Your task to perform on an android device: turn on airplane mode Image 0: 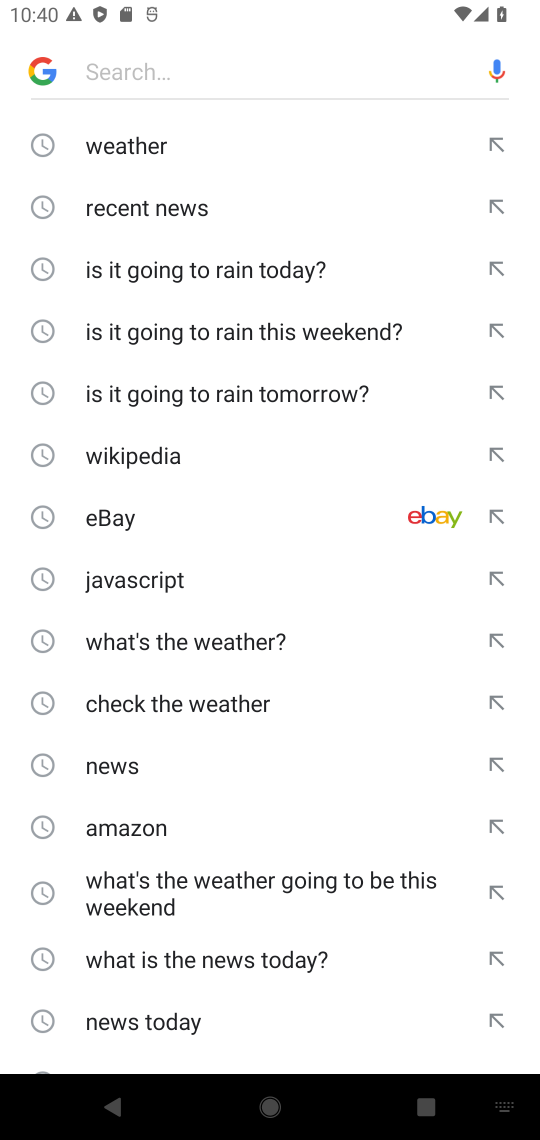
Step 0: drag from (265, 4) to (257, 871)
Your task to perform on an android device: turn on airplane mode Image 1: 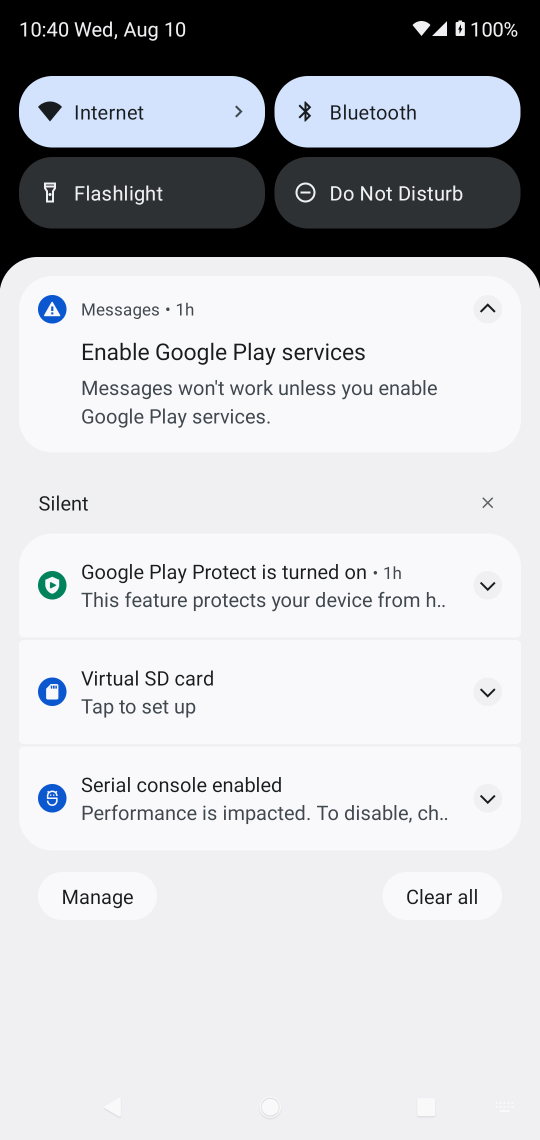
Step 1: drag from (281, 236) to (271, 1133)
Your task to perform on an android device: turn on airplane mode Image 2: 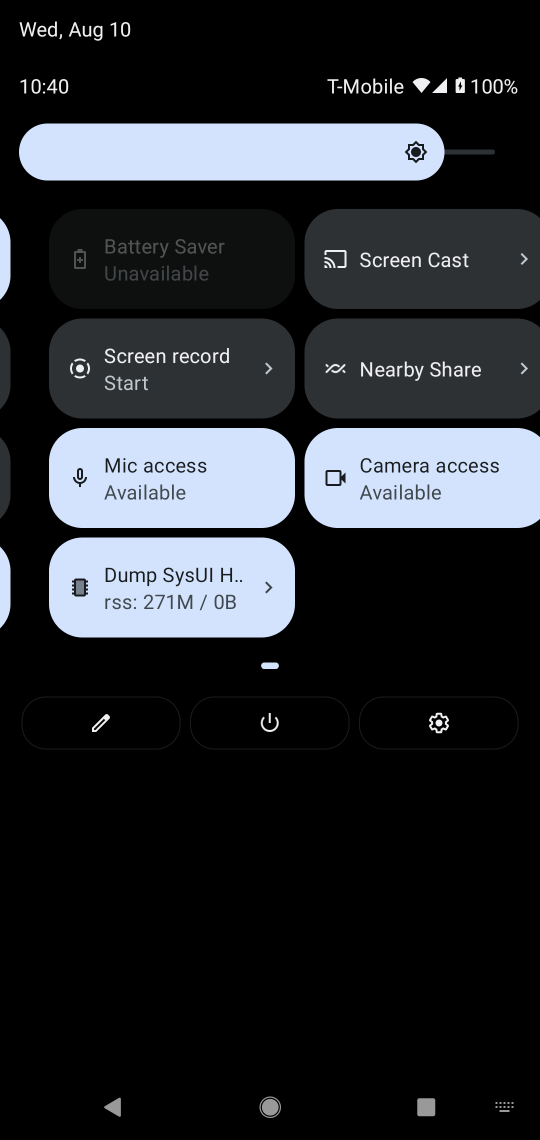
Step 2: click (443, 480)
Your task to perform on an android device: turn on airplane mode Image 3: 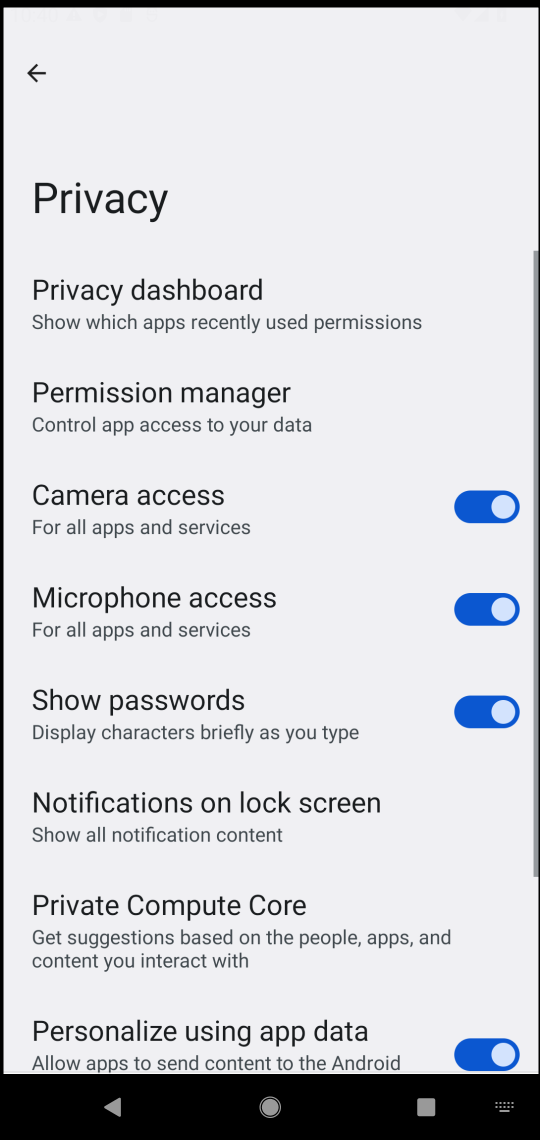
Step 3: click (22, 408)
Your task to perform on an android device: turn on airplane mode Image 4: 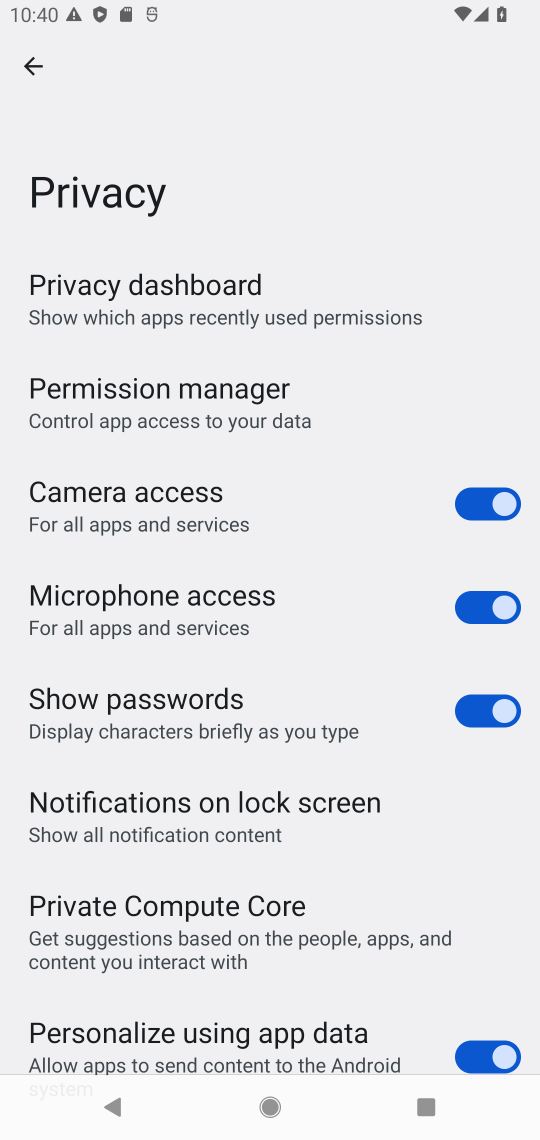
Step 4: click (23, 68)
Your task to perform on an android device: turn on airplane mode Image 5: 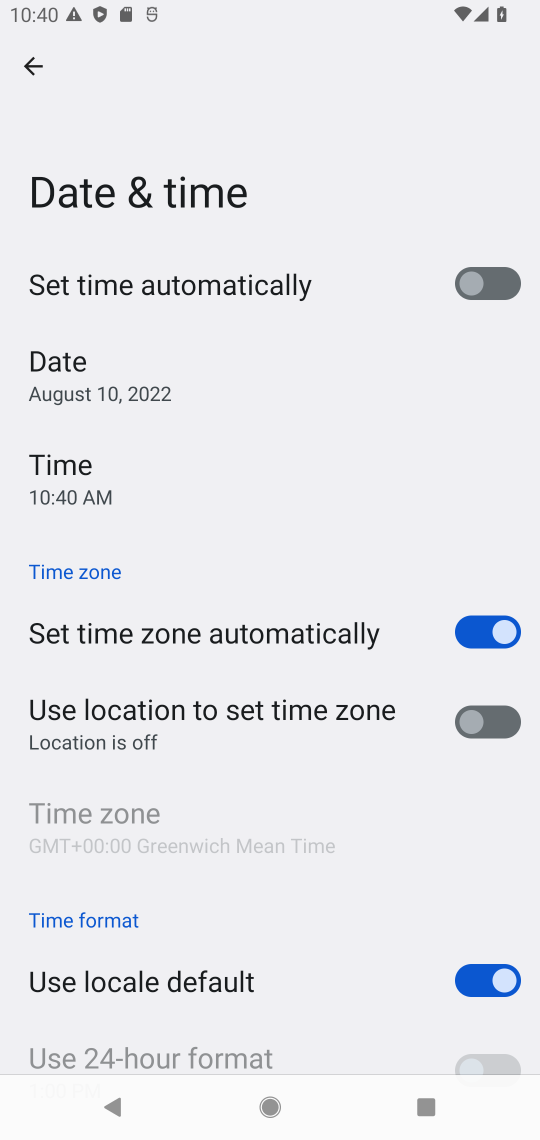
Step 5: click (35, 56)
Your task to perform on an android device: turn on airplane mode Image 6: 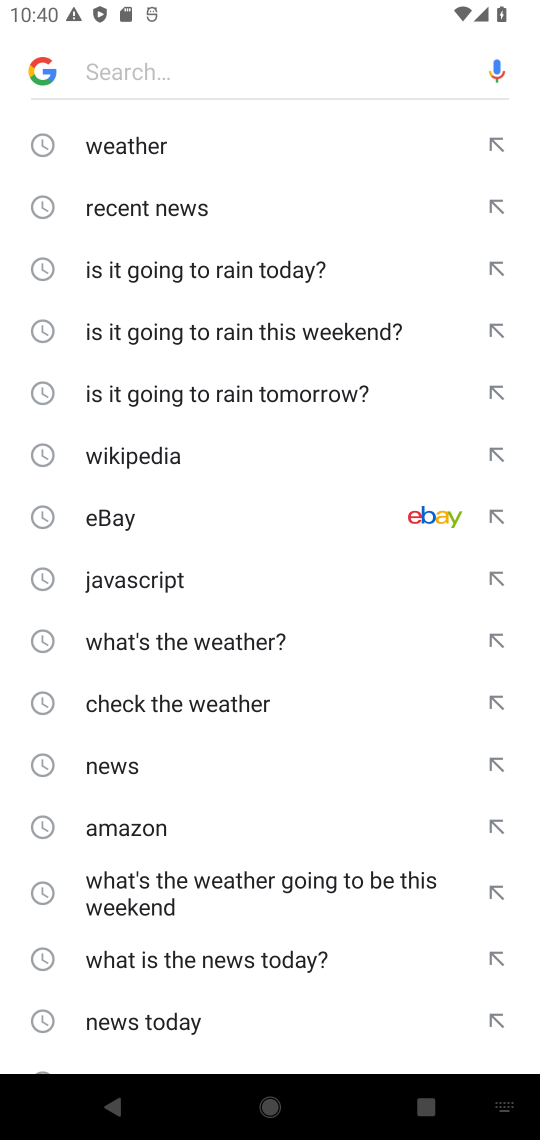
Step 6: press home button
Your task to perform on an android device: turn on airplane mode Image 7: 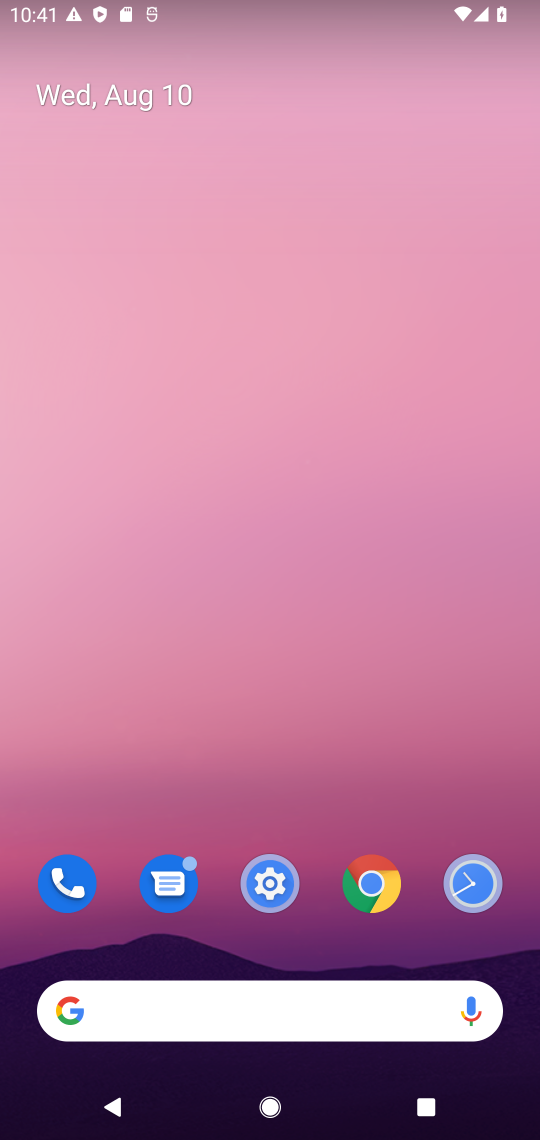
Step 7: drag from (265, 3) to (336, 917)
Your task to perform on an android device: turn on airplane mode Image 8: 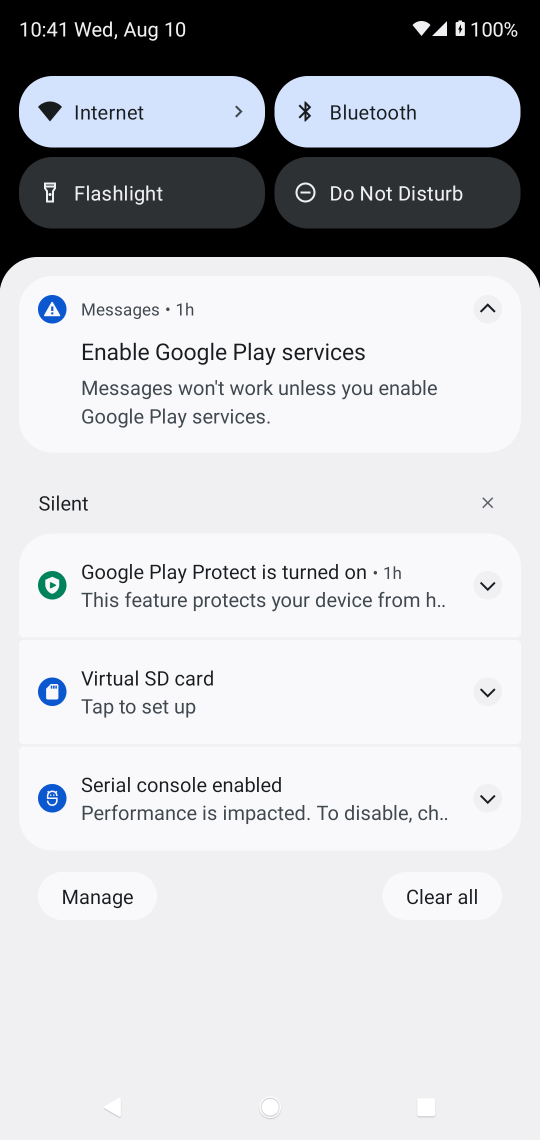
Step 8: drag from (265, 222) to (284, 1118)
Your task to perform on an android device: turn on airplane mode Image 9: 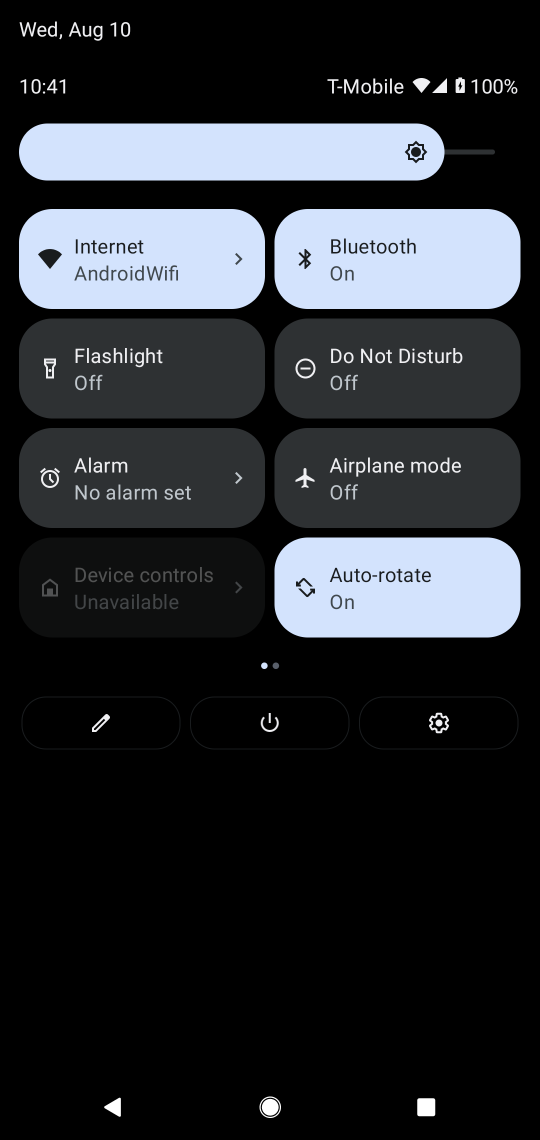
Step 9: click (375, 469)
Your task to perform on an android device: turn on airplane mode Image 10: 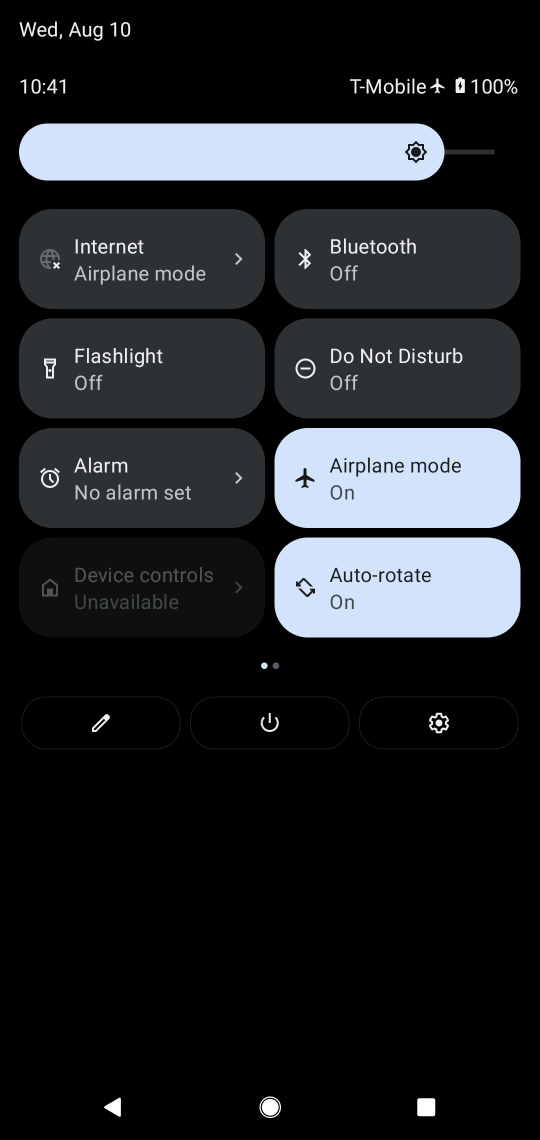
Step 10: task complete